Your task to perform on an android device: When is my next meeting? Image 0: 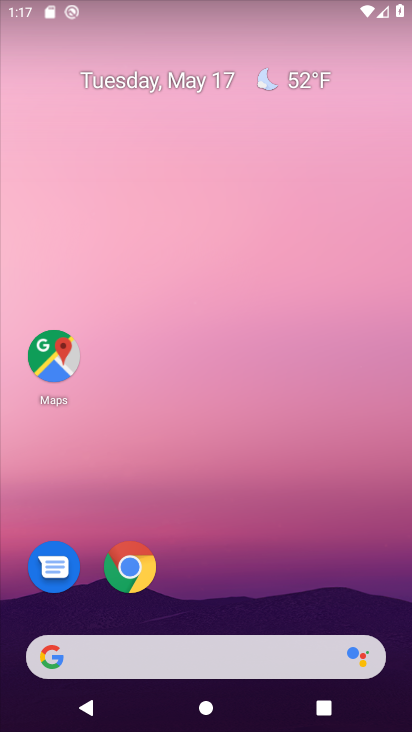
Step 0: drag from (220, 615) to (200, 171)
Your task to perform on an android device: When is my next meeting? Image 1: 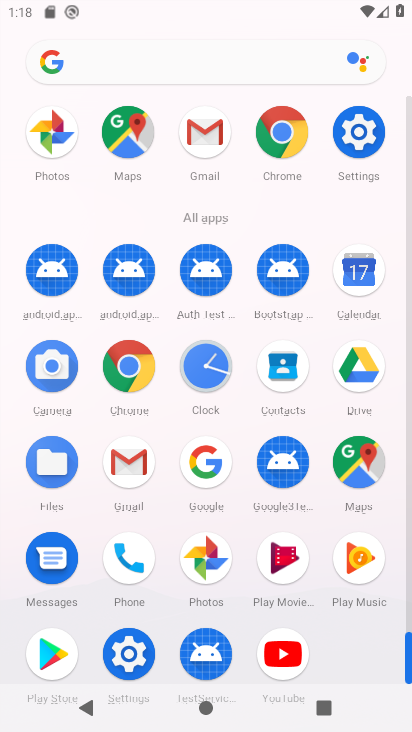
Step 1: click (355, 302)
Your task to perform on an android device: When is my next meeting? Image 2: 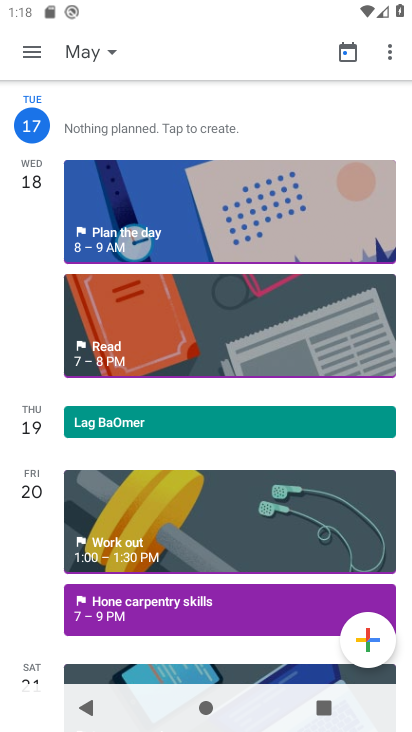
Step 2: drag from (144, 561) to (260, 11)
Your task to perform on an android device: When is my next meeting? Image 3: 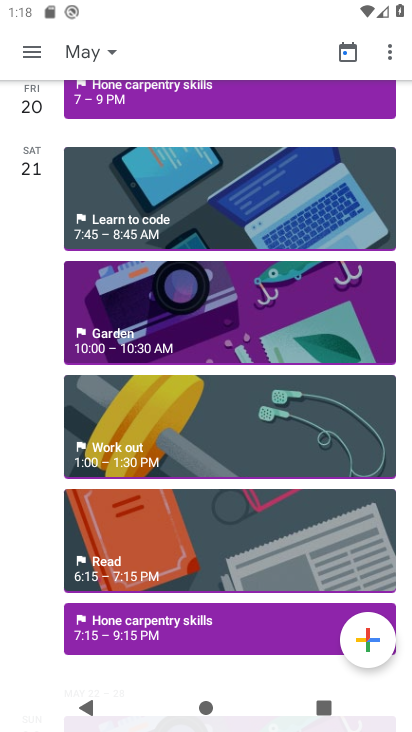
Step 3: drag from (164, 606) to (214, 9)
Your task to perform on an android device: When is my next meeting? Image 4: 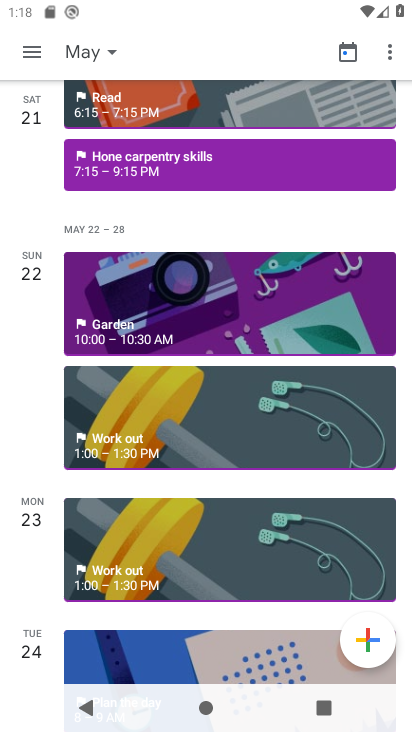
Step 4: click (282, 188)
Your task to perform on an android device: When is my next meeting? Image 5: 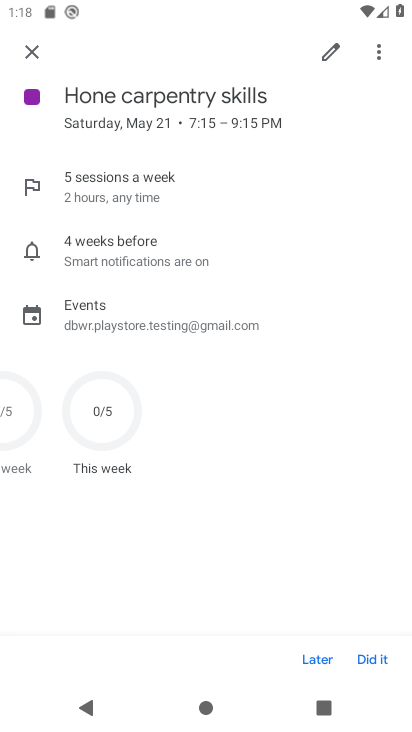
Step 5: drag from (197, 638) to (184, 552)
Your task to perform on an android device: When is my next meeting? Image 6: 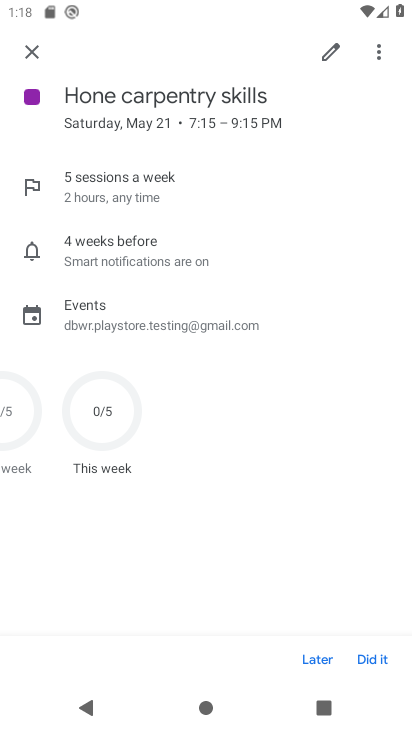
Step 6: click (37, 43)
Your task to perform on an android device: When is my next meeting? Image 7: 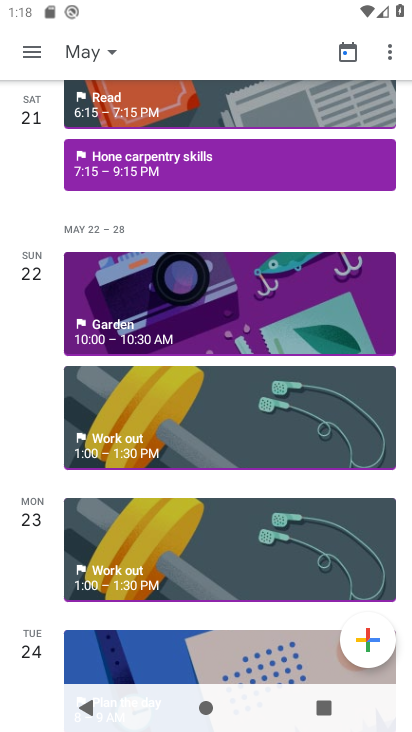
Step 7: drag from (193, 660) to (183, 178)
Your task to perform on an android device: When is my next meeting? Image 8: 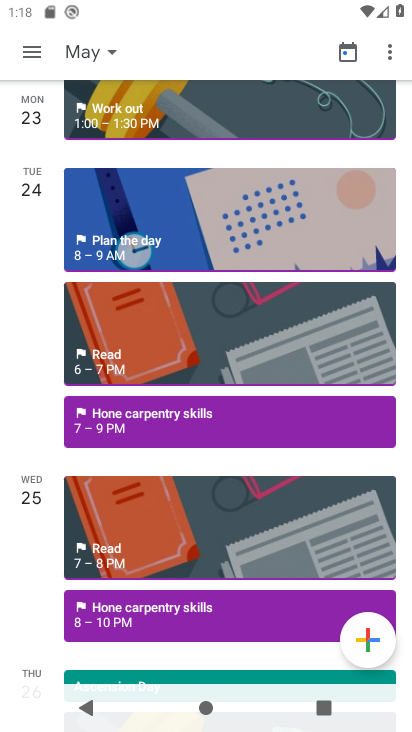
Step 8: drag from (165, 442) to (160, 133)
Your task to perform on an android device: When is my next meeting? Image 9: 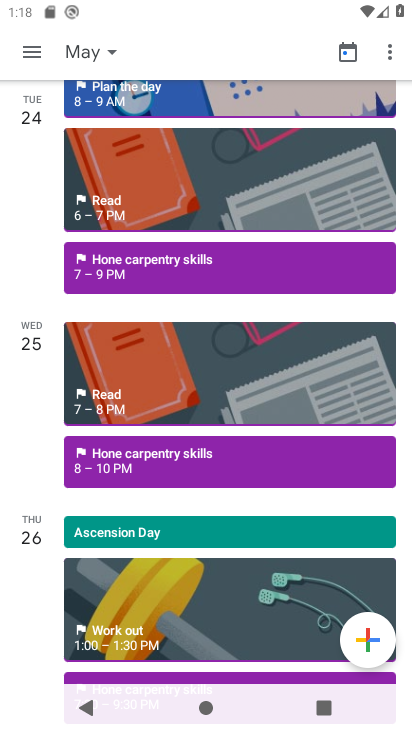
Step 9: drag from (162, 543) to (156, 94)
Your task to perform on an android device: When is my next meeting? Image 10: 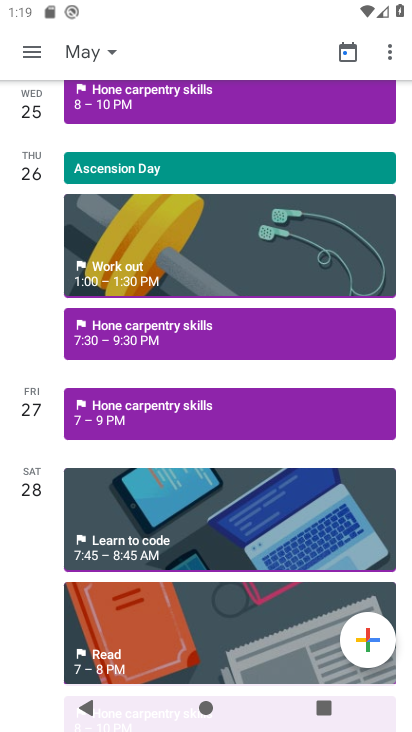
Step 10: drag from (154, 580) to (132, 189)
Your task to perform on an android device: When is my next meeting? Image 11: 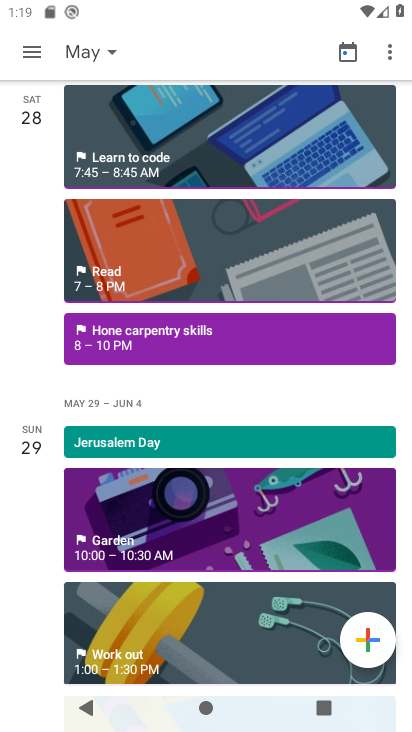
Step 11: drag from (197, 647) to (212, 264)
Your task to perform on an android device: When is my next meeting? Image 12: 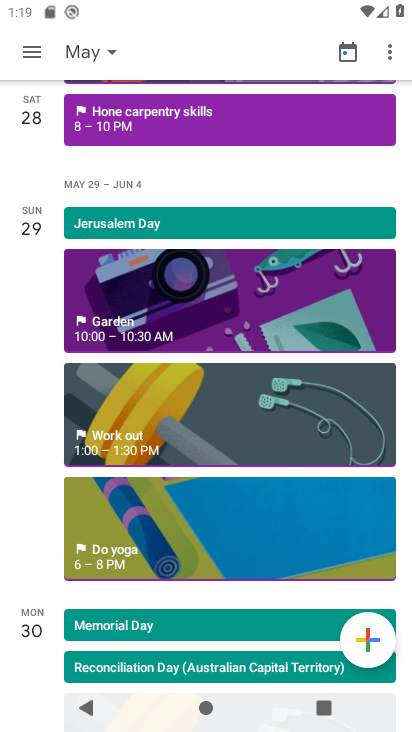
Step 12: drag from (187, 371) to (182, 206)
Your task to perform on an android device: When is my next meeting? Image 13: 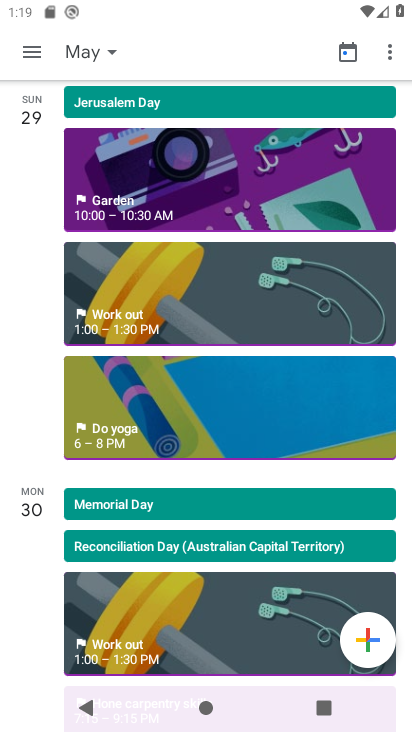
Step 13: drag from (211, 580) to (236, 190)
Your task to perform on an android device: When is my next meeting? Image 14: 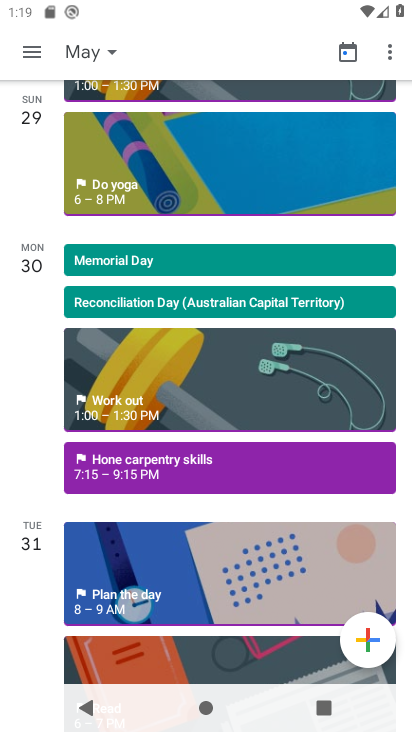
Step 14: drag from (191, 629) to (165, 212)
Your task to perform on an android device: When is my next meeting? Image 15: 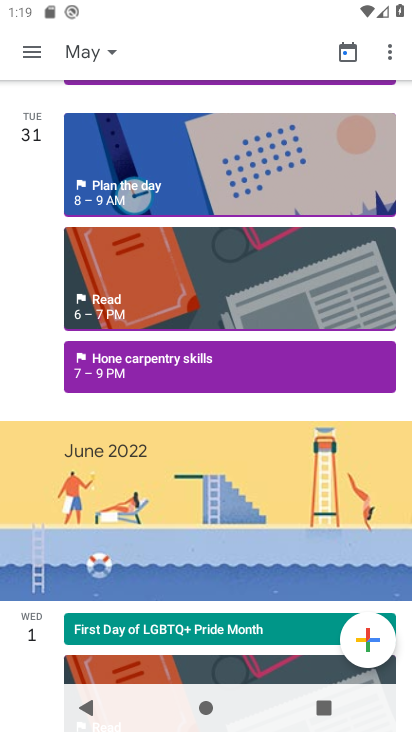
Step 15: drag from (208, 503) to (263, 120)
Your task to perform on an android device: When is my next meeting? Image 16: 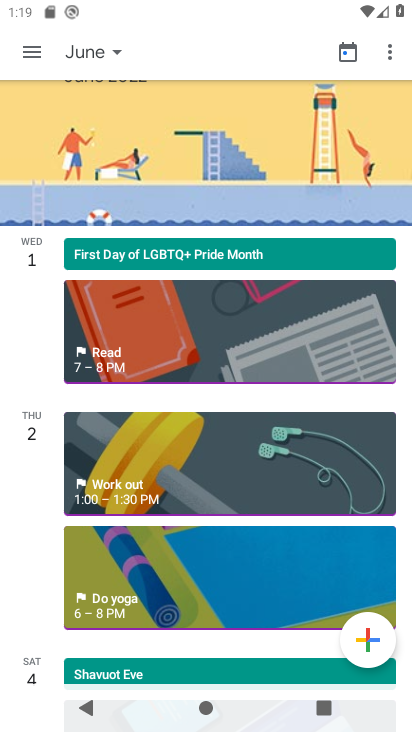
Step 16: drag from (182, 587) to (238, 137)
Your task to perform on an android device: When is my next meeting? Image 17: 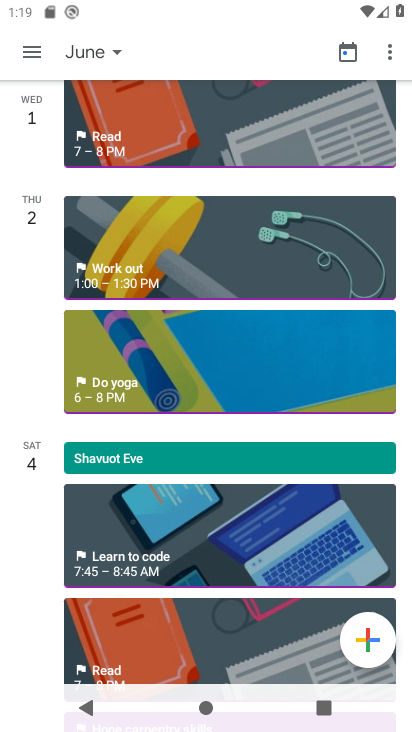
Step 17: drag from (208, 585) to (310, 64)
Your task to perform on an android device: When is my next meeting? Image 18: 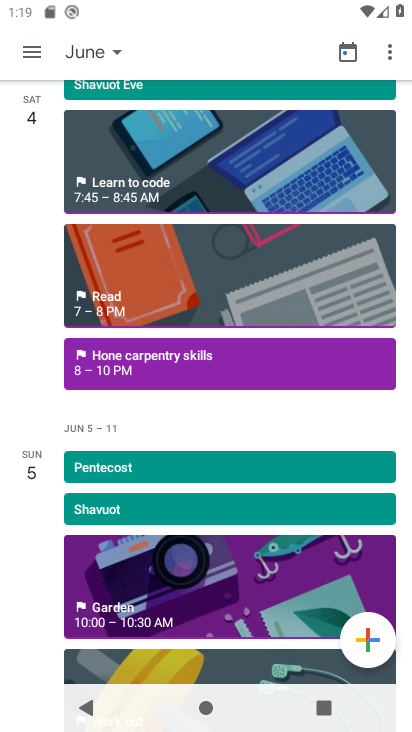
Step 18: click (109, 385)
Your task to perform on an android device: When is my next meeting? Image 19: 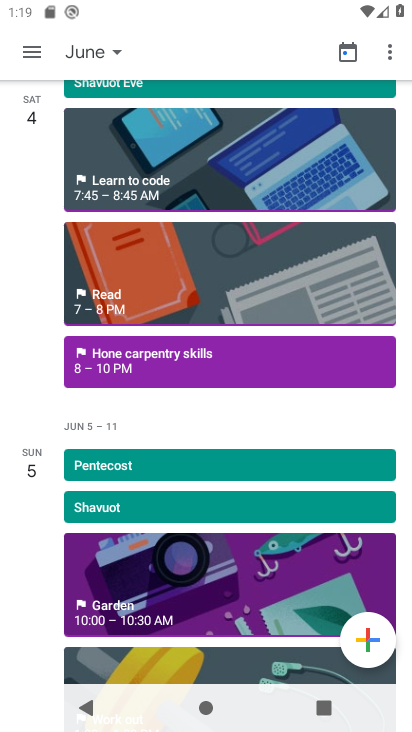
Step 19: task complete